Your task to perform on an android device: Open the calendar app, open the side menu, and click the "Day" option Image 0: 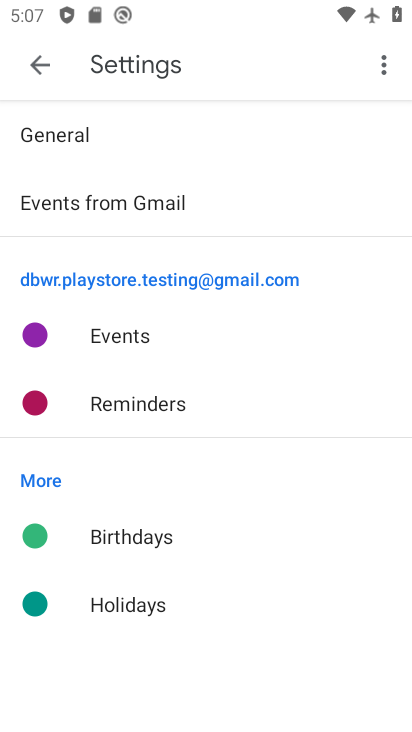
Step 0: press home button
Your task to perform on an android device: Open the calendar app, open the side menu, and click the "Day" option Image 1: 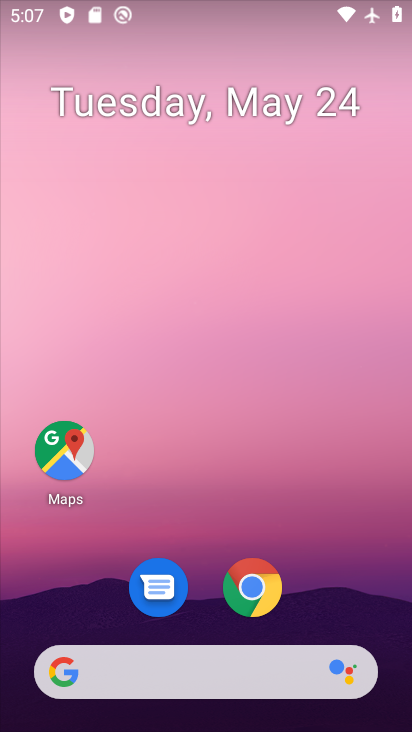
Step 1: drag from (311, 435) to (166, 17)
Your task to perform on an android device: Open the calendar app, open the side menu, and click the "Day" option Image 2: 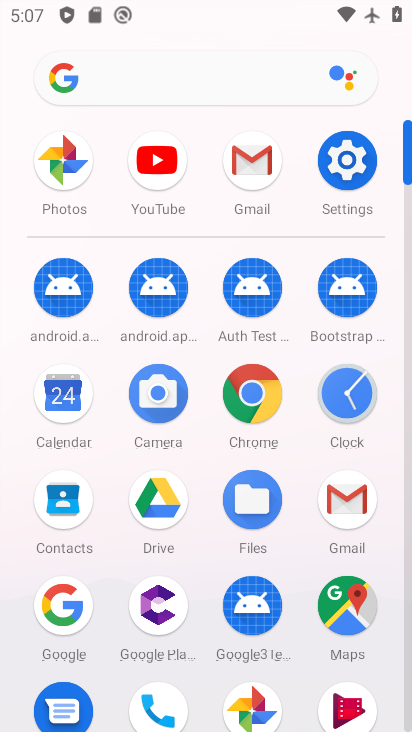
Step 2: click (64, 397)
Your task to perform on an android device: Open the calendar app, open the side menu, and click the "Day" option Image 3: 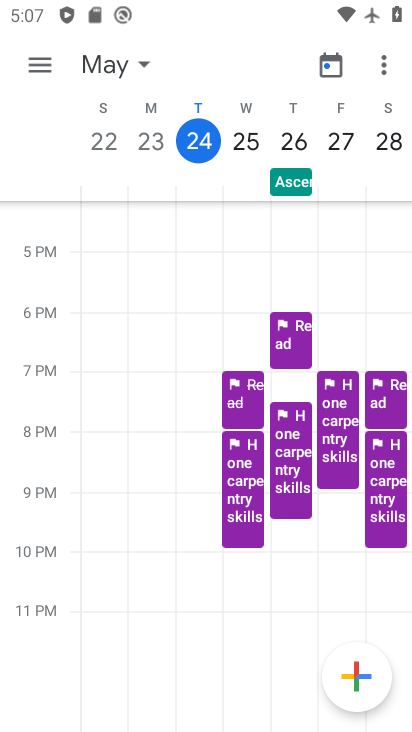
Step 3: click (40, 58)
Your task to perform on an android device: Open the calendar app, open the side menu, and click the "Day" option Image 4: 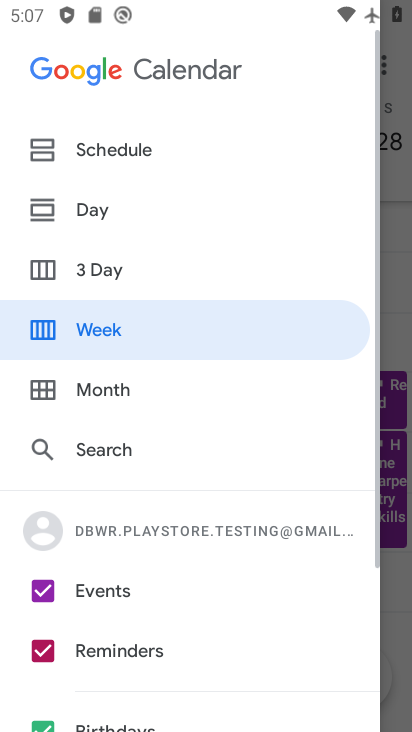
Step 4: click (126, 207)
Your task to perform on an android device: Open the calendar app, open the side menu, and click the "Day" option Image 5: 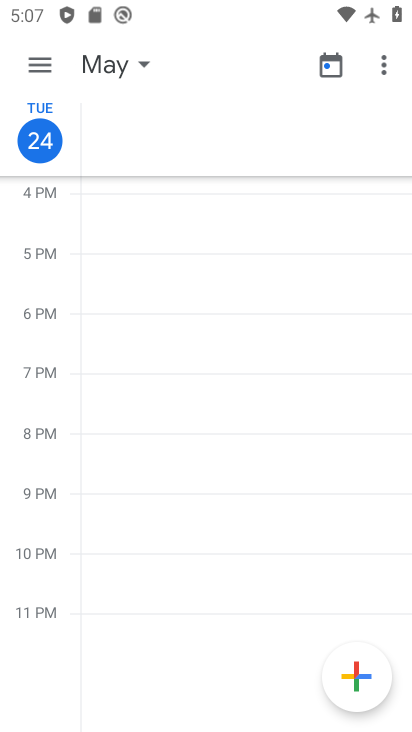
Step 5: task complete